Your task to perform on an android device: Open Chrome and go to settings Image 0: 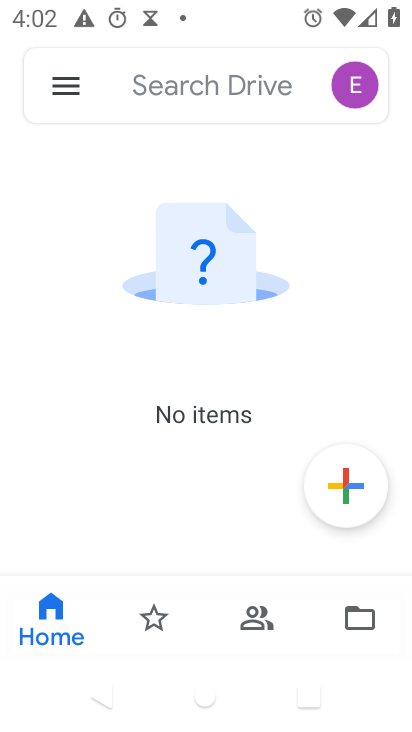
Step 0: press home button
Your task to perform on an android device: Open Chrome and go to settings Image 1: 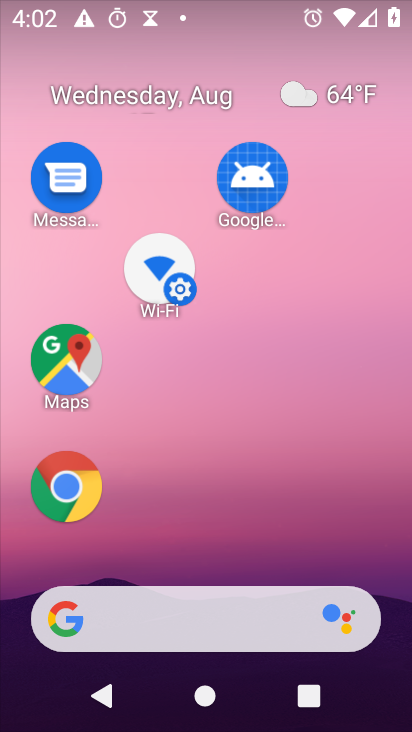
Step 1: click (56, 479)
Your task to perform on an android device: Open Chrome and go to settings Image 2: 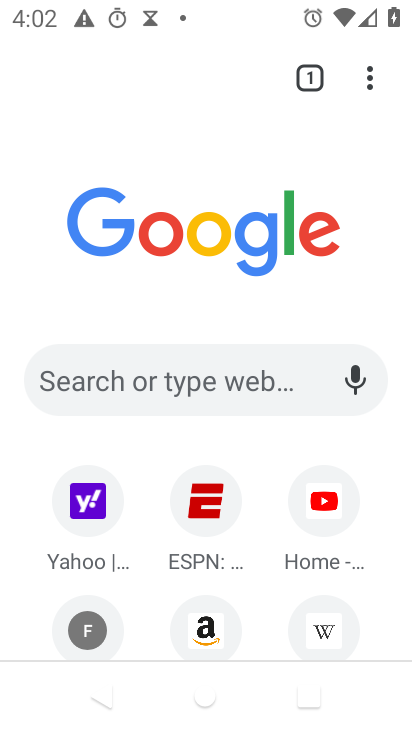
Step 2: task complete